Your task to perform on an android device: add a label to a message in the gmail app Image 0: 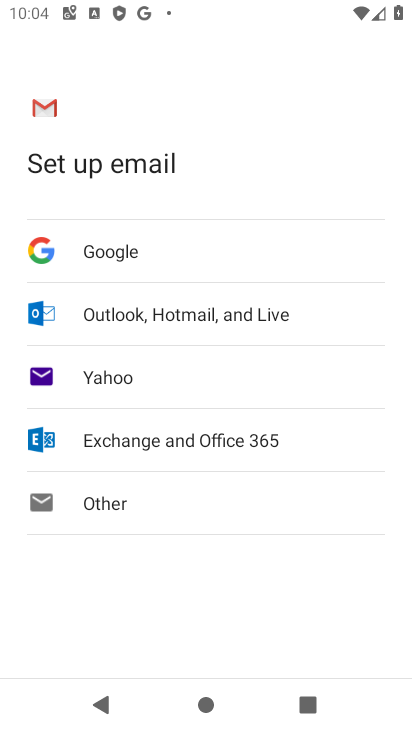
Step 0: press home button
Your task to perform on an android device: add a label to a message in the gmail app Image 1: 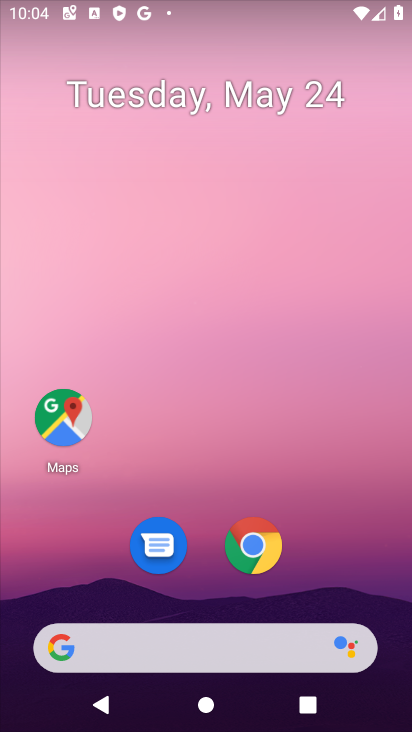
Step 1: drag from (238, 482) to (263, 2)
Your task to perform on an android device: add a label to a message in the gmail app Image 2: 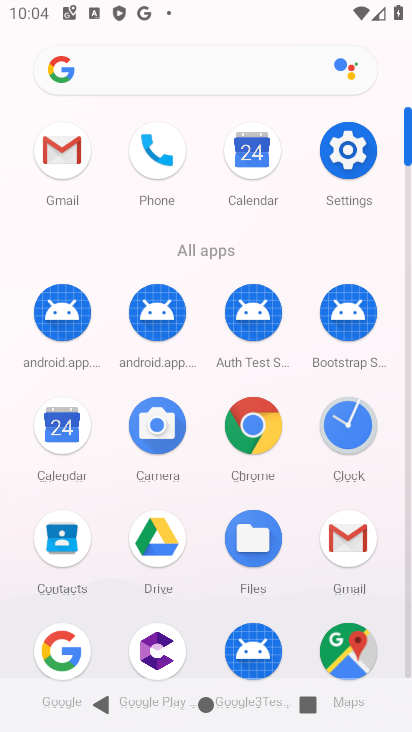
Step 2: click (69, 149)
Your task to perform on an android device: add a label to a message in the gmail app Image 3: 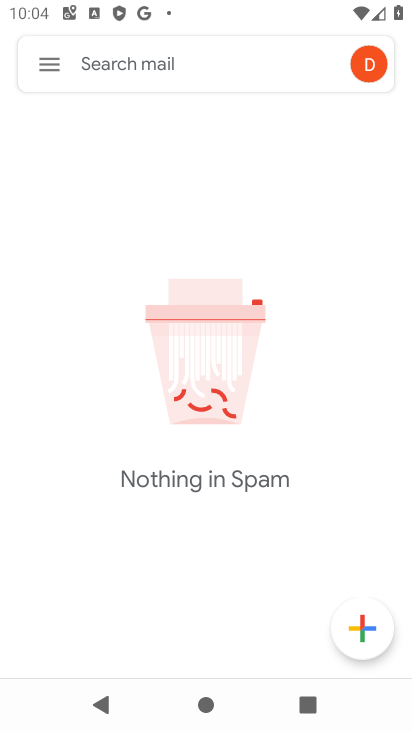
Step 3: click (51, 60)
Your task to perform on an android device: add a label to a message in the gmail app Image 4: 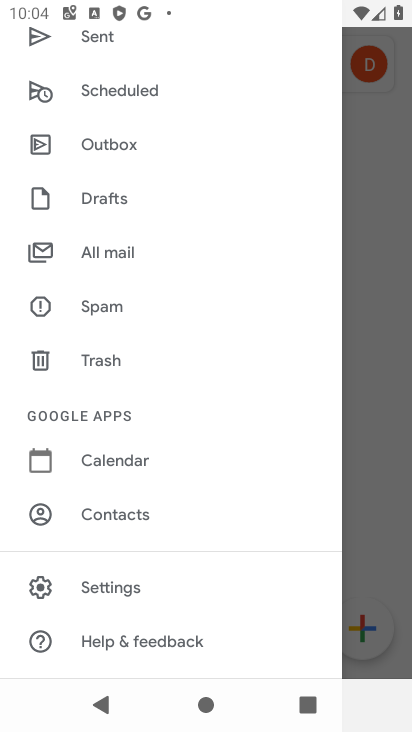
Step 4: click (91, 239)
Your task to perform on an android device: add a label to a message in the gmail app Image 5: 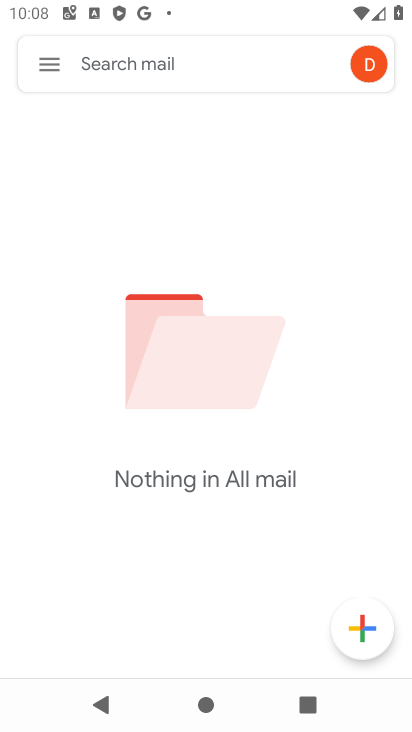
Step 5: task complete